Your task to perform on an android device: open sync settings in chrome Image 0: 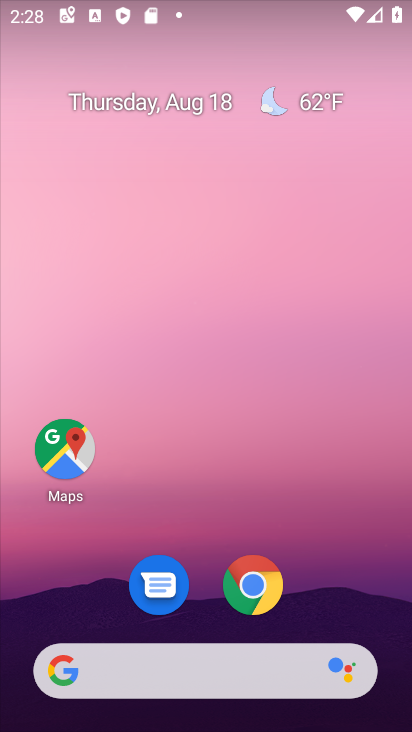
Step 0: click (257, 577)
Your task to perform on an android device: open sync settings in chrome Image 1: 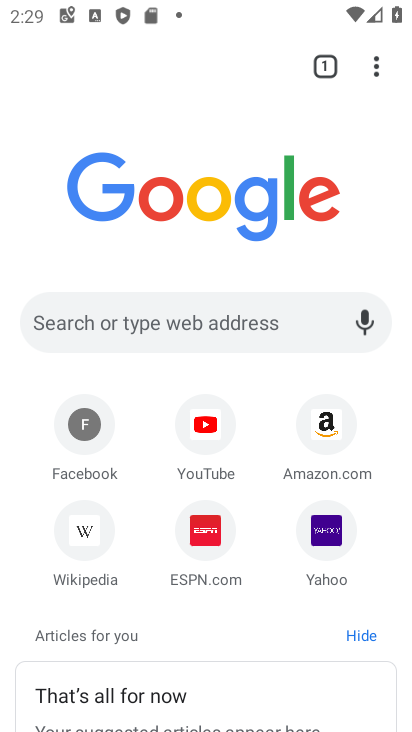
Step 1: click (376, 71)
Your task to perform on an android device: open sync settings in chrome Image 2: 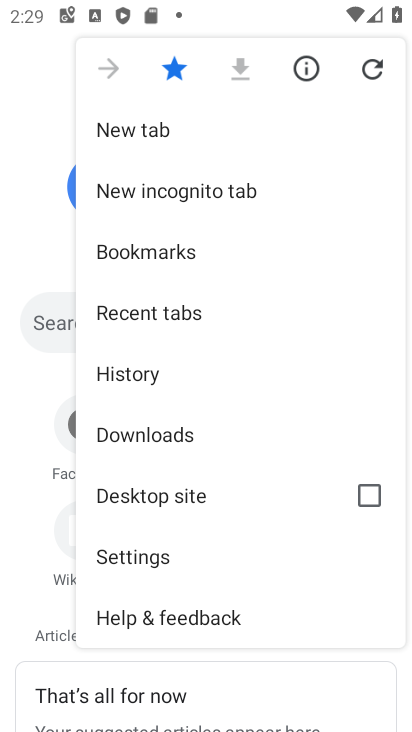
Step 2: click (164, 553)
Your task to perform on an android device: open sync settings in chrome Image 3: 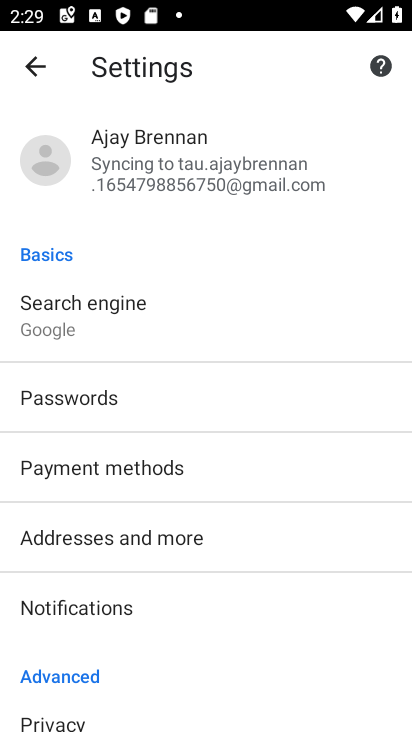
Step 3: click (151, 166)
Your task to perform on an android device: open sync settings in chrome Image 4: 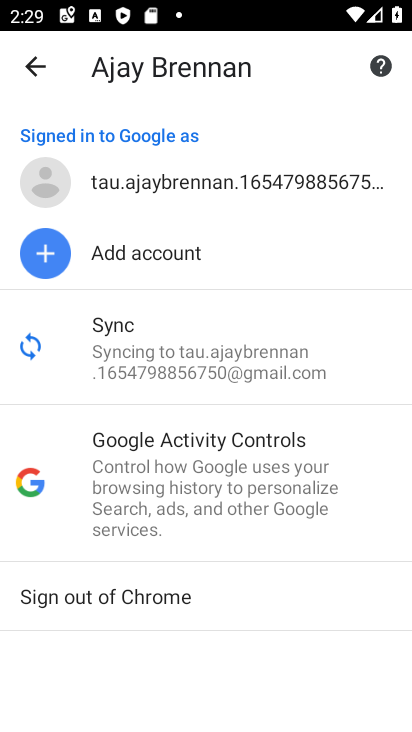
Step 4: click (154, 348)
Your task to perform on an android device: open sync settings in chrome Image 5: 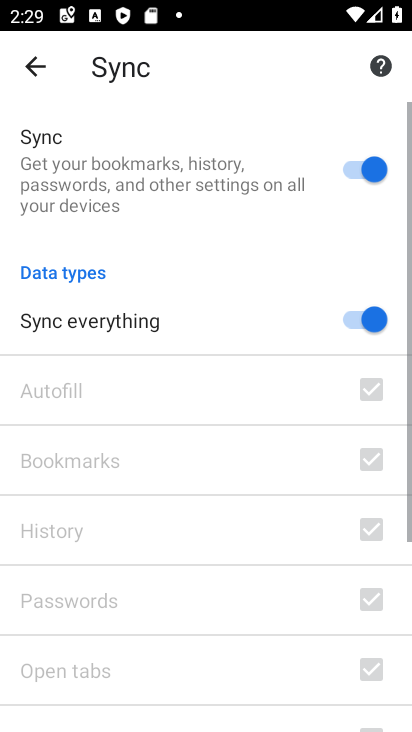
Step 5: task complete